Your task to perform on an android device: Open Google Chrome and click the shortcut for Amazon.com Image 0: 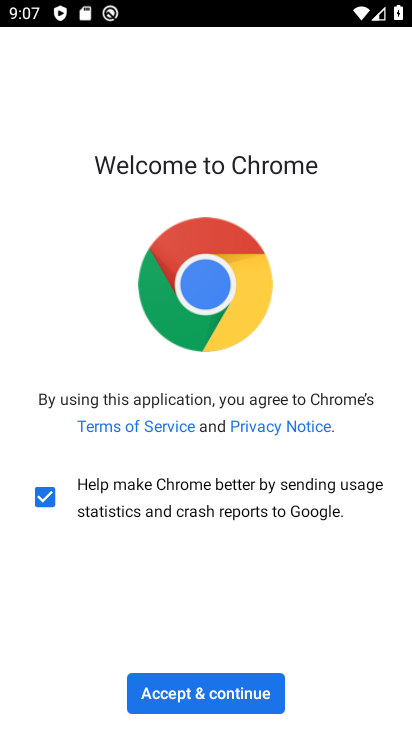
Step 0: task complete